Your task to perform on an android device: set the stopwatch Image 0: 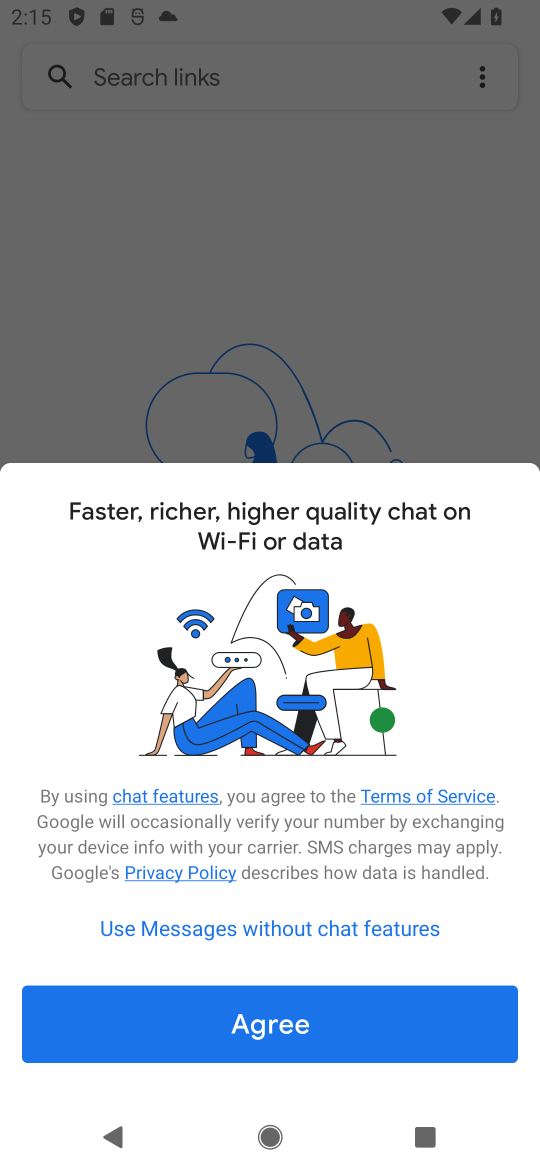
Step 0: press home button
Your task to perform on an android device: set the stopwatch Image 1: 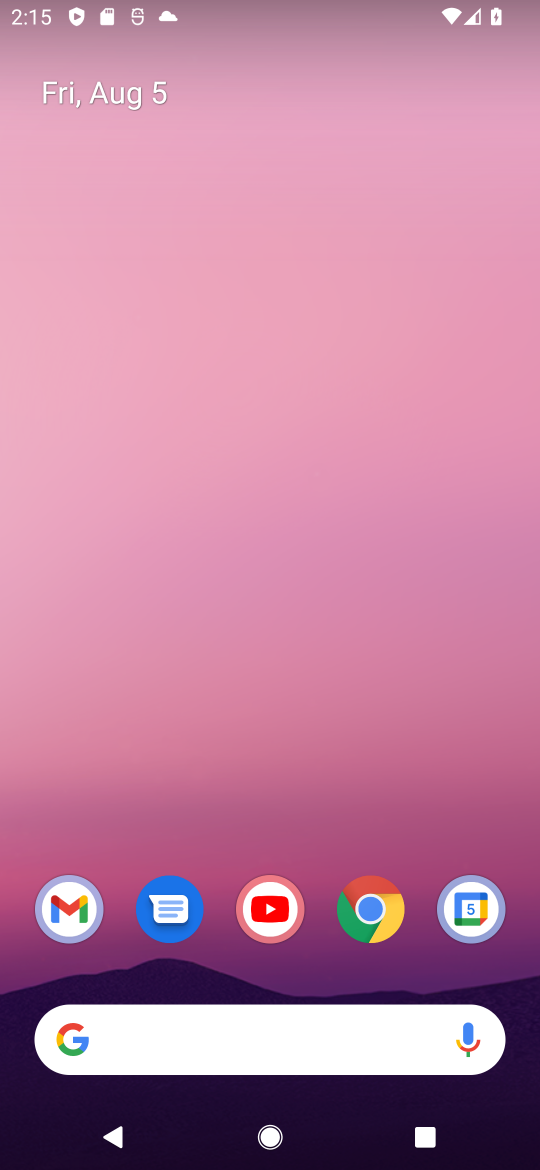
Step 1: drag from (211, 981) to (188, 232)
Your task to perform on an android device: set the stopwatch Image 2: 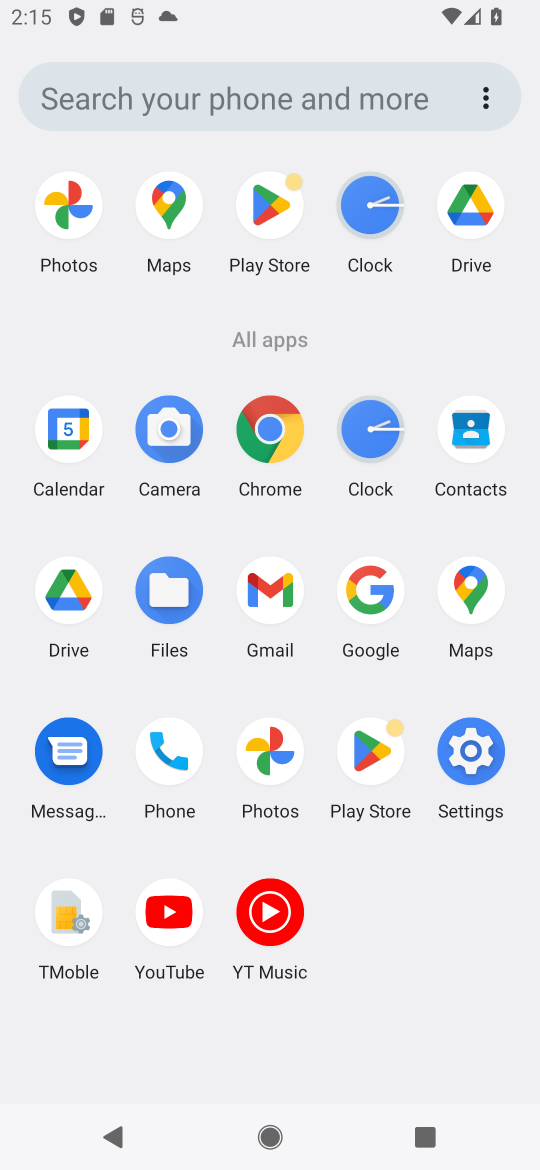
Step 2: click (340, 198)
Your task to perform on an android device: set the stopwatch Image 3: 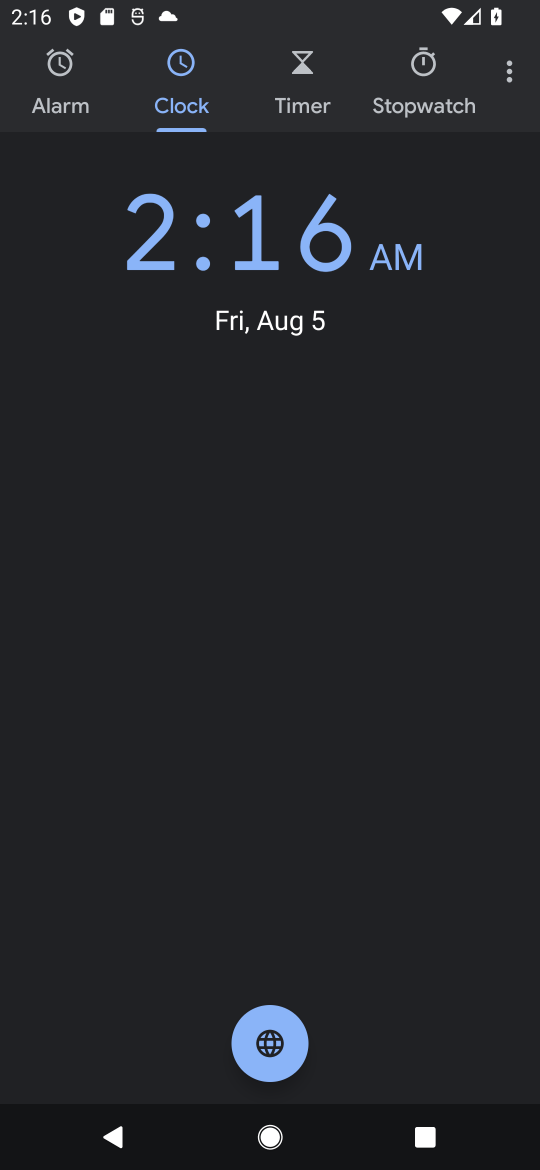
Step 3: click (448, 99)
Your task to perform on an android device: set the stopwatch Image 4: 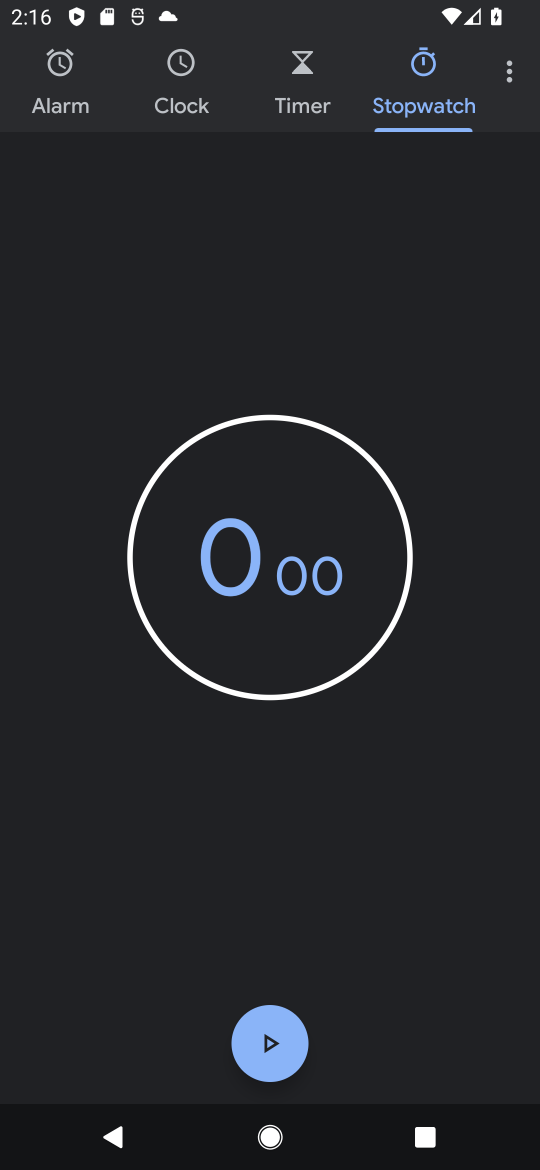
Step 4: task complete